Your task to perform on an android device: Open accessibility settings Image 0: 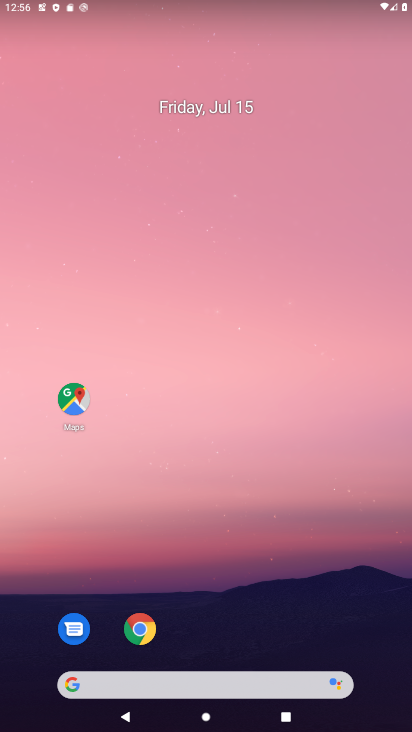
Step 0: drag from (253, 367) to (223, 60)
Your task to perform on an android device: Open accessibility settings Image 1: 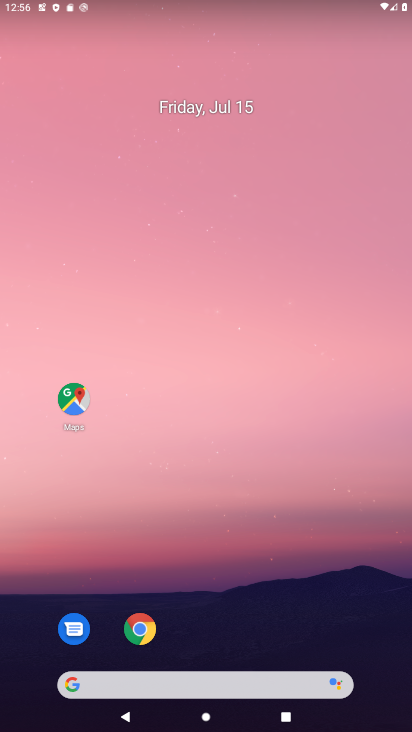
Step 1: drag from (308, 625) to (272, 54)
Your task to perform on an android device: Open accessibility settings Image 2: 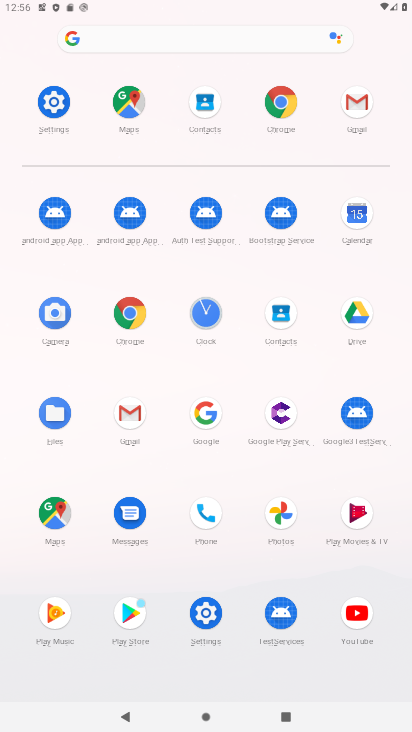
Step 2: click (58, 100)
Your task to perform on an android device: Open accessibility settings Image 3: 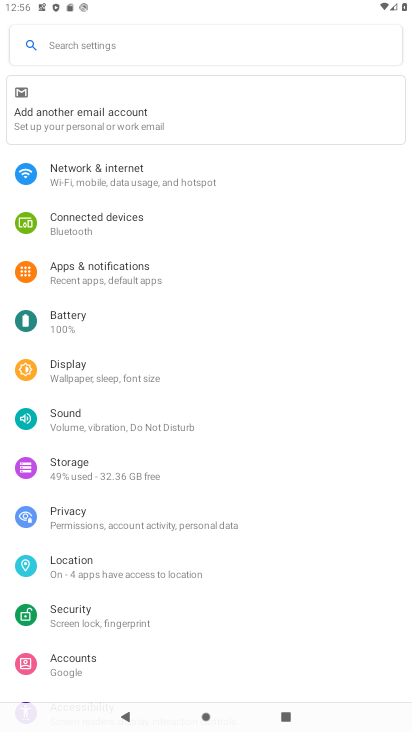
Step 3: drag from (185, 617) to (228, 250)
Your task to perform on an android device: Open accessibility settings Image 4: 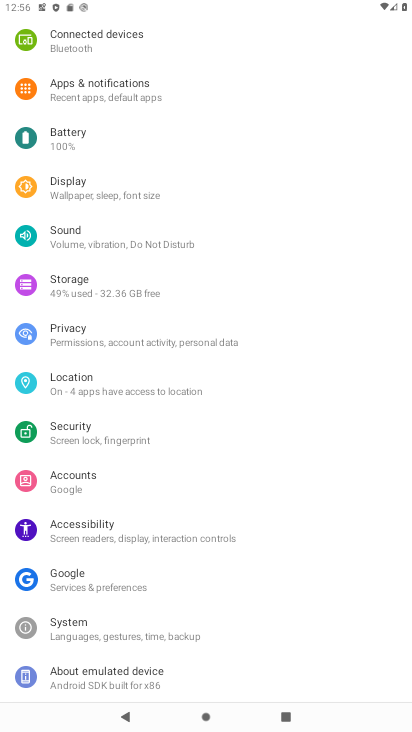
Step 4: click (145, 534)
Your task to perform on an android device: Open accessibility settings Image 5: 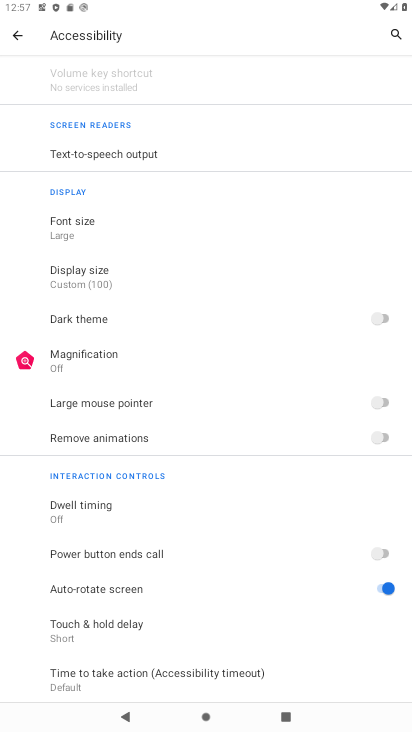
Step 5: task complete